Your task to perform on an android device: change alarm snooze length Image 0: 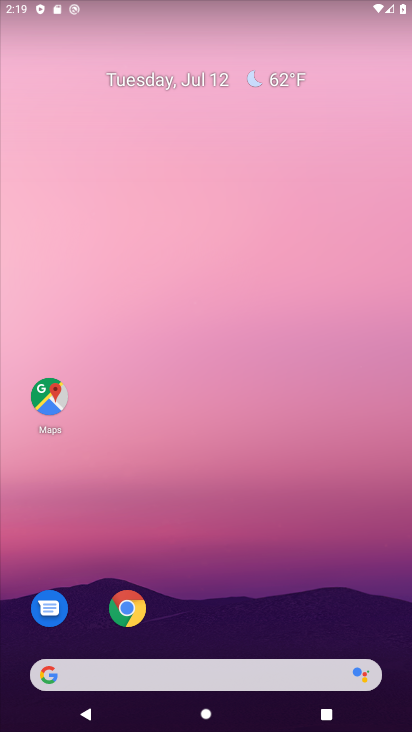
Step 0: drag from (182, 679) to (366, 122)
Your task to perform on an android device: change alarm snooze length Image 1: 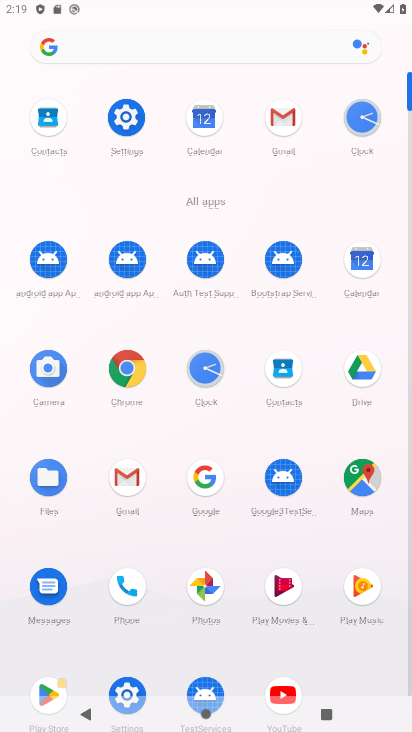
Step 1: click (207, 376)
Your task to perform on an android device: change alarm snooze length Image 2: 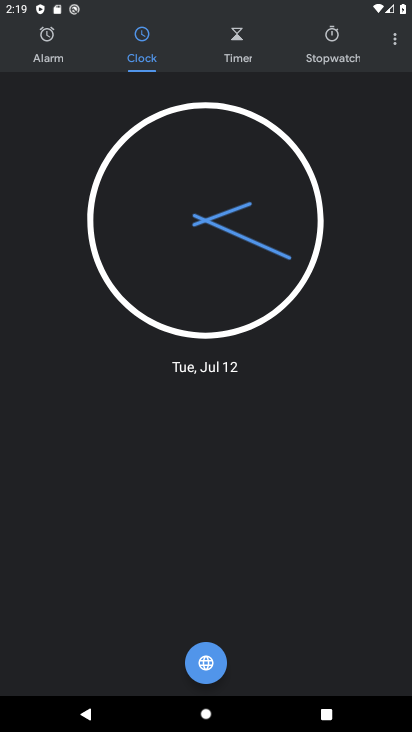
Step 2: click (399, 41)
Your task to perform on an android device: change alarm snooze length Image 3: 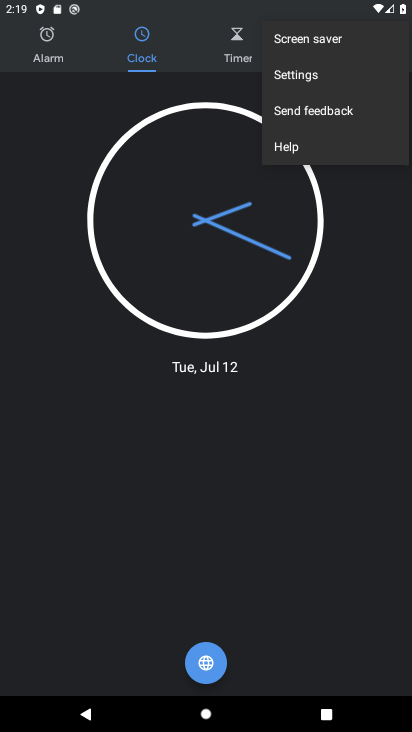
Step 3: click (332, 76)
Your task to perform on an android device: change alarm snooze length Image 4: 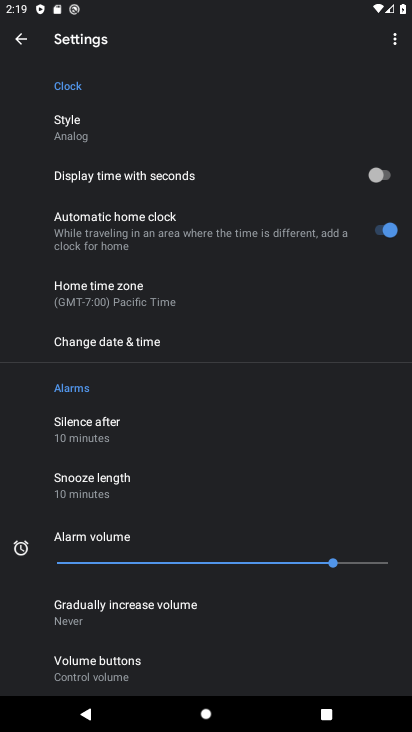
Step 4: click (98, 480)
Your task to perform on an android device: change alarm snooze length Image 5: 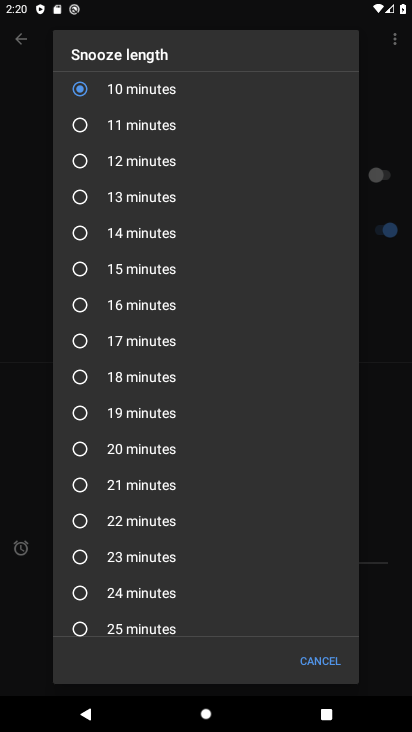
Step 5: click (78, 234)
Your task to perform on an android device: change alarm snooze length Image 6: 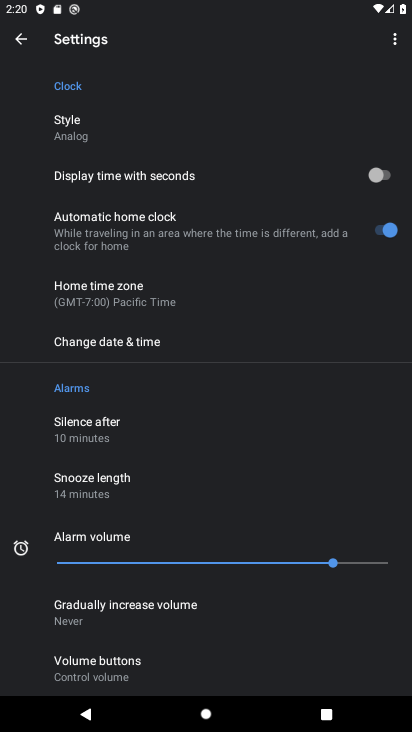
Step 6: task complete